Your task to perform on an android device: Open Youtube and go to the subscriptions tab Image 0: 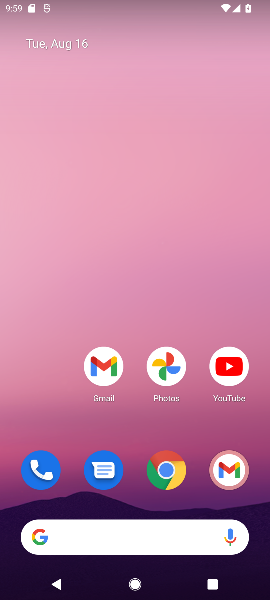
Step 0: click (234, 368)
Your task to perform on an android device: Open Youtube and go to the subscriptions tab Image 1: 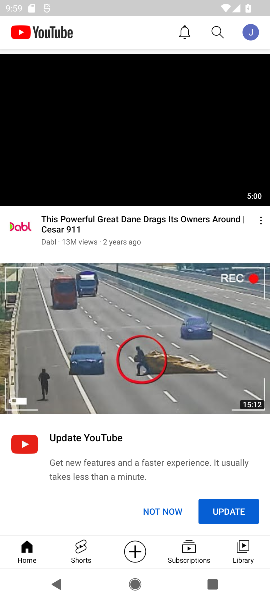
Step 1: click (188, 554)
Your task to perform on an android device: Open Youtube and go to the subscriptions tab Image 2: 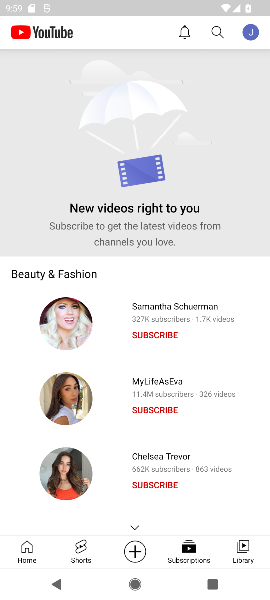
Step 2: task complete